Your task to perform on an android device: delete browsing data in the chrome app Image 0: 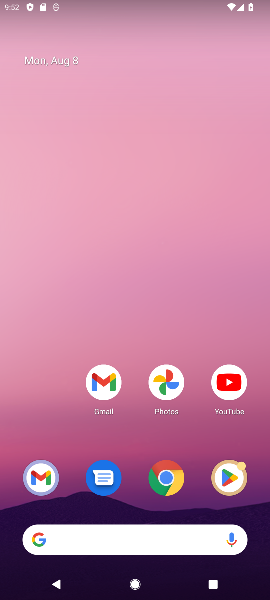
Step 0: drag from (151, 505) to (104, 130)
Your task to perform on an android device: delete browsing data in the chrome app Image 1: 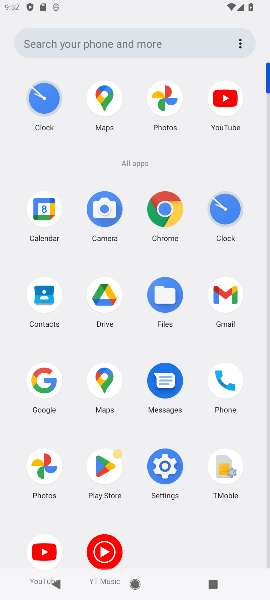
Step 1: click (143, 216)
Your task to perform on an android device: delete browsing data in the chrome app Image 2: 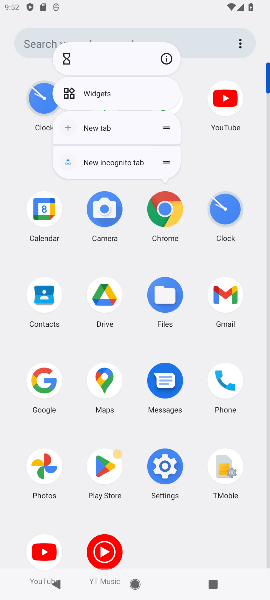
Step 2: click (167, 209)
Your task to perform on an android device: delete browsing data in the chrome app Image 3: 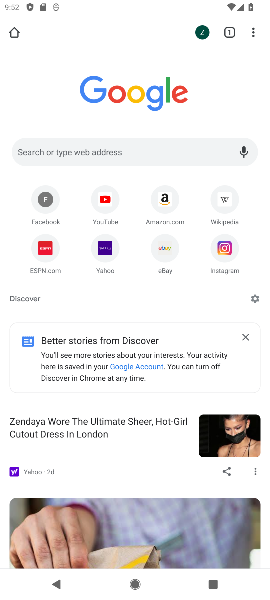
Step 3: click (247, 29)
Your task to perform on an android device: delete browsing data in the chrome app Image 4: 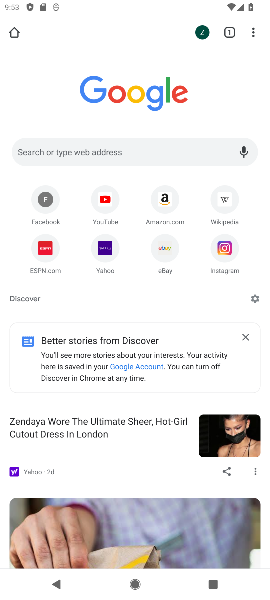
Step 4: drag from (251, 28) to (161, 157)
Your task to perform on an android device: delete browsing data in the chrome app Image 5: 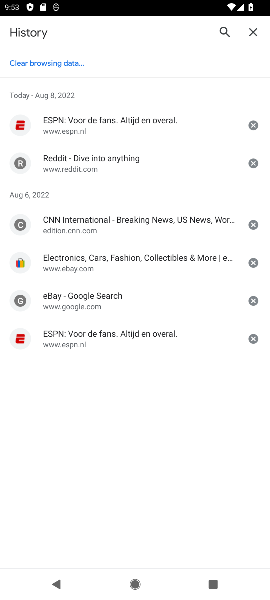
Step 5: click (31, 62)
Your task to perform on an android device: delete browsing data in the chrome app Image 6: 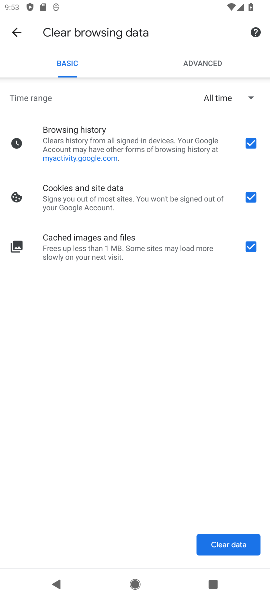
Step 6: click (237, 548)
Your task to perform on an android device: delete browsing data in the chrome app Image 7: 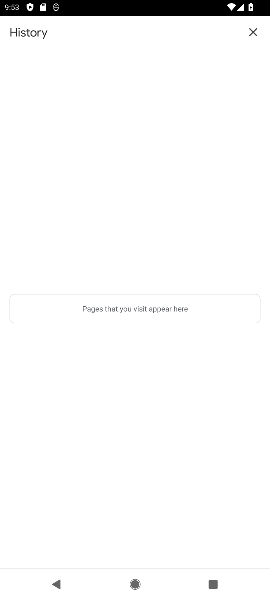
Step 7: task complete